Your task to perform on an android device: turn notification dots on Image 0: 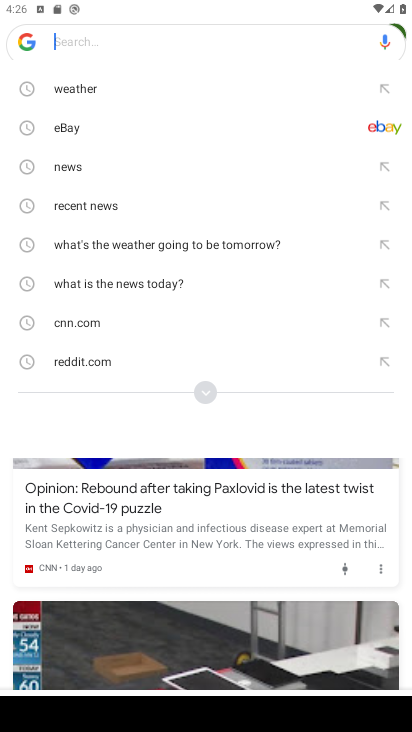
Step 0: press home button
Your task to perform on an android device: turn notification dots on Image 1: 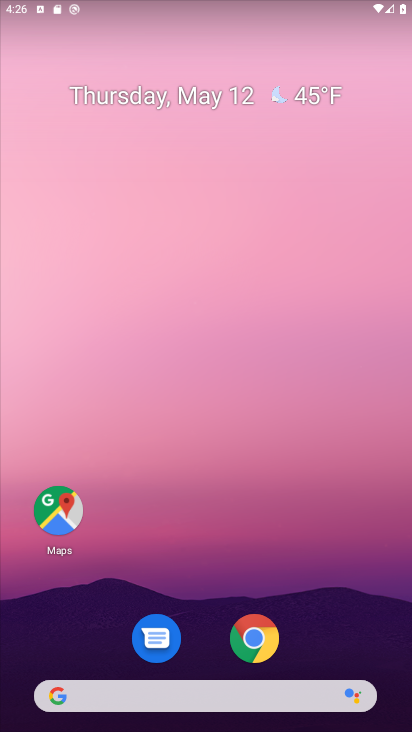
Step 1: drag from (322, 586) to (220, 125)
Your task to perform on an android device: turn notification dots on Image 2: 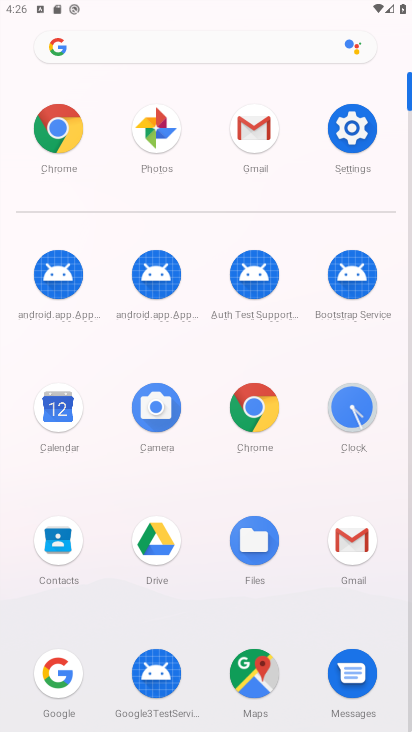
Step 2: click (343, 135)
Your task to perform on an android device: turn notification dots on Image 3: 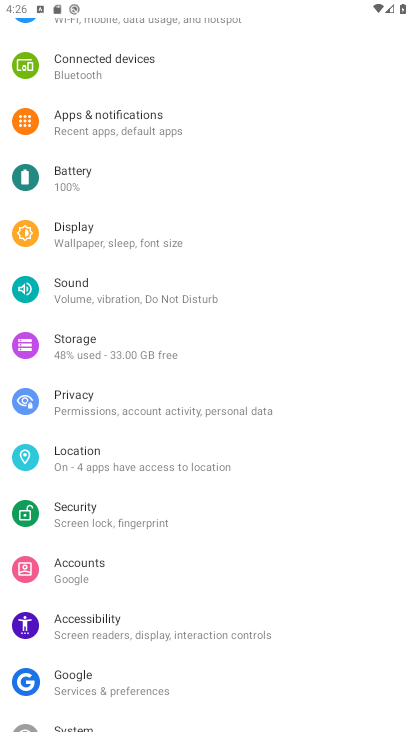
Step 3: click (132, 133)
Your task to perform on an android device: turn notification dots on Image 4: 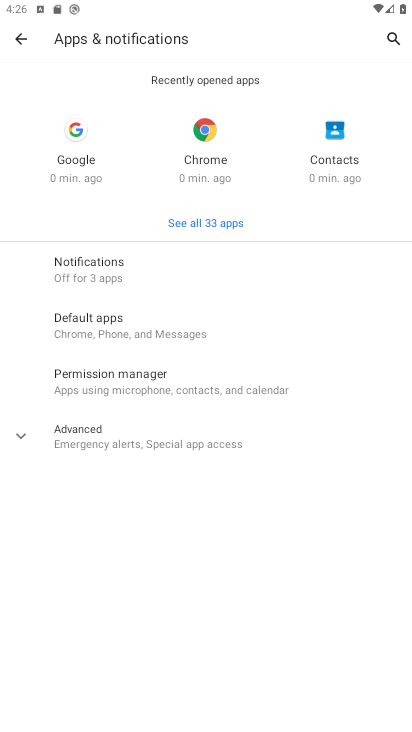
Step 4: click (117, 258)
Your task to perform on an android device: turn notification dots on Image 5: 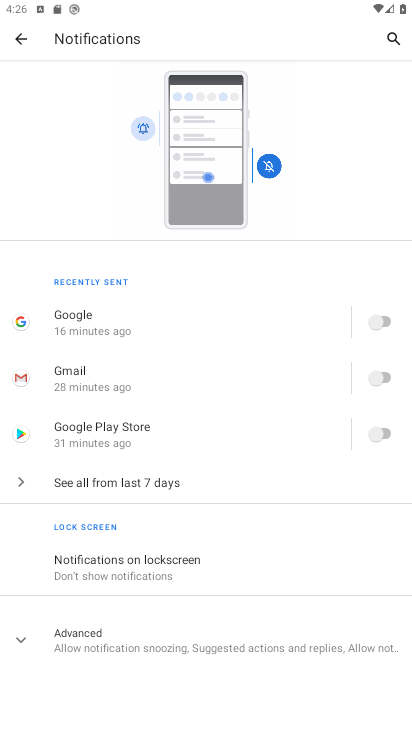
Step 5: click (135, 634)
Your task to perform on an android device: turn notification dots on Image 6: 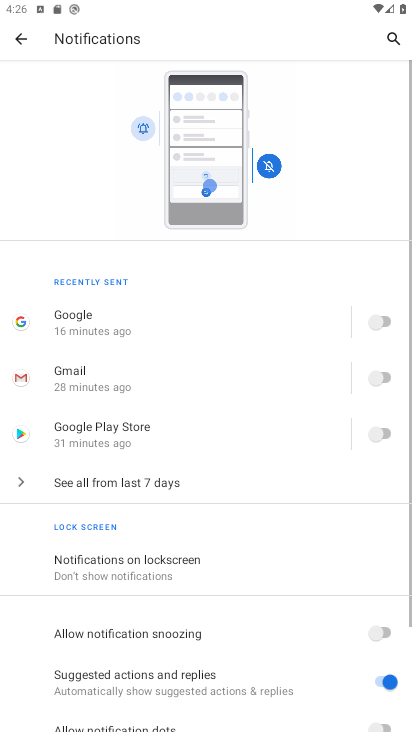
Step 6: drag from (168, 689) to (188, 393)
Your task to perform on an android device: turn notification dots on Image 7: 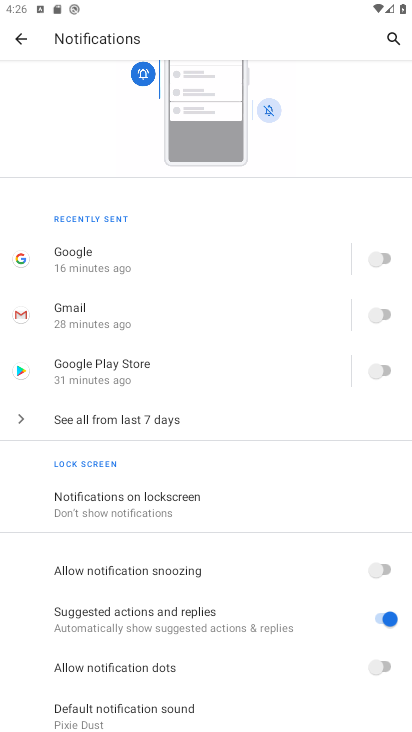
Step 7: click (378, 673)
Your task to perform on an android device: turn notification dots on Image 8: 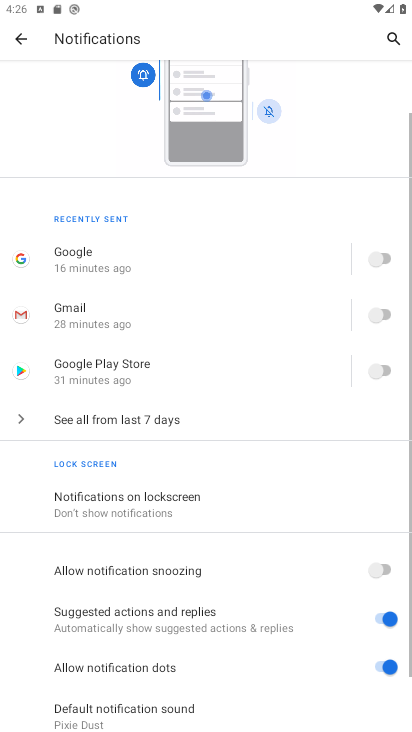
Step 8: task complete